Your task to perform on an android device: Open Google Maps and go to "Timeline" Image 0: 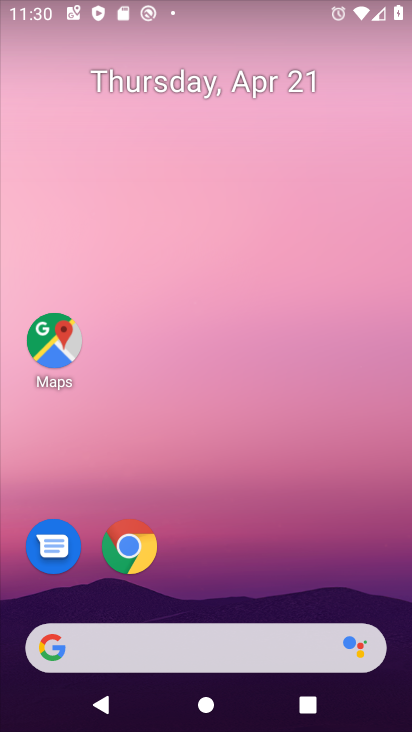
Step 0: click (57, 353)
Your task to perform on an android device: Open Google Maps and go to "Timeline" Image 1: 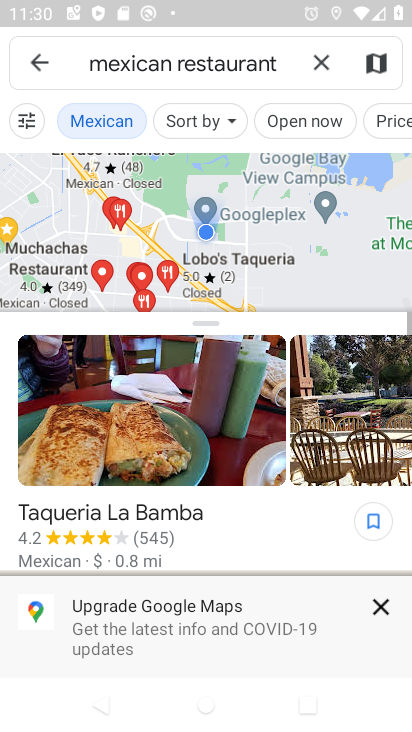
Step 1: press back button
Your task to perform on an android device: Open Google Maps and go to "Timeline" Image 2: 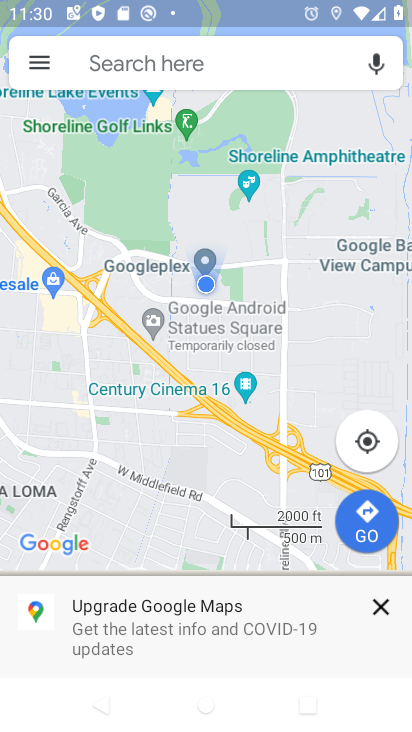
Step 2: click (39, 59)
Your task to perform on an android device: Open Google Maps and go to "Timeline" Image 3: 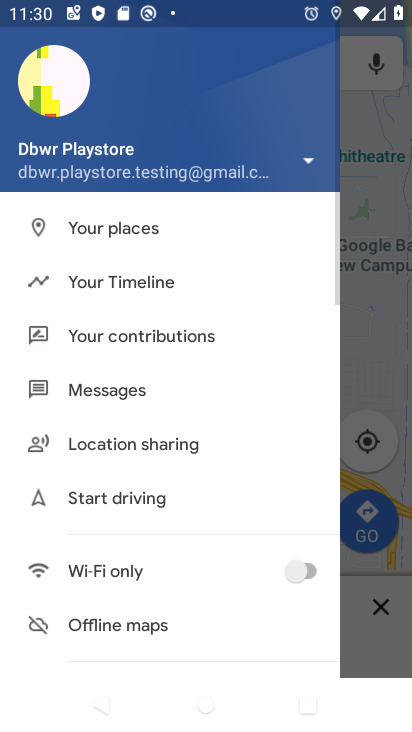
Step 3: click (128, 280)
Your task to perform on an android device: Open Google Maps and go to "Timeline" Image 4: 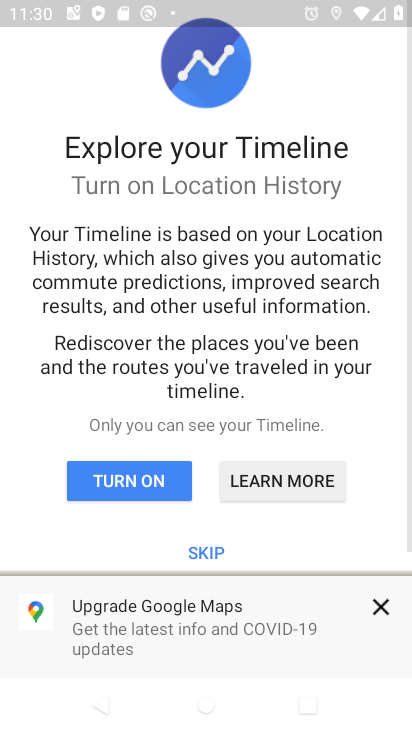
Step 4: click (167, 472)
Your task to perform on an android device: Open Google Maps and go to "Timeline" Image 5: 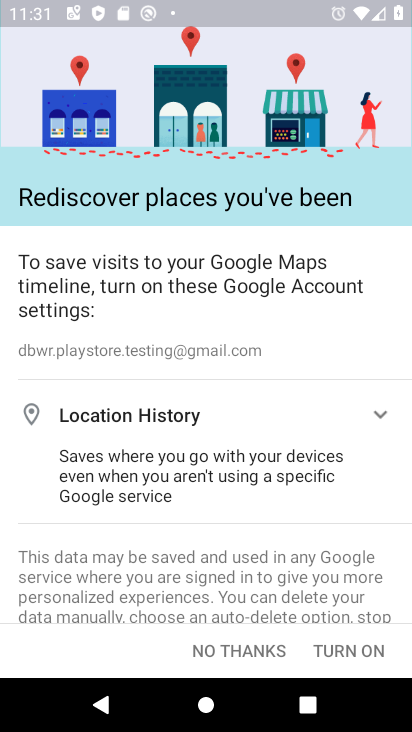
Step 5: task complete